Your task to perform on an android device: Open calendar and show me the third week of next month Image 0: 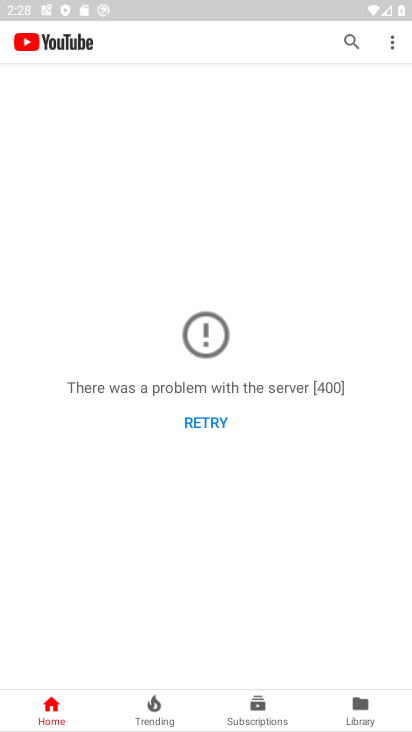
Step 0: press back button
Your task to perform on an android device: Open calendar and show me the third week of next month Image 1: 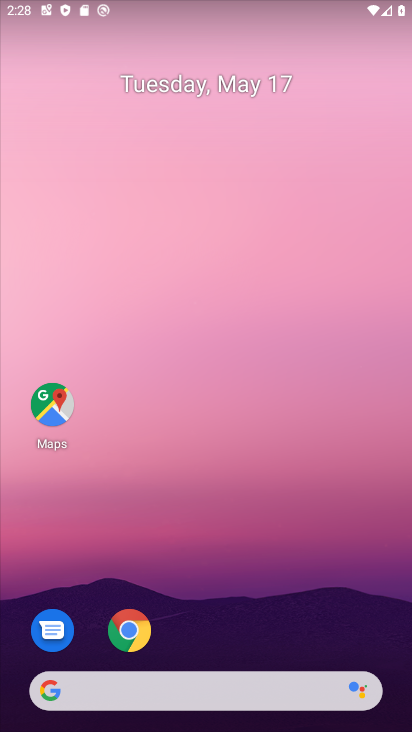
Step 1: drag from (221, 673) to (232, 321)
Your task to perform on an android device: Open calendar and show me the third week of next month Image 2: 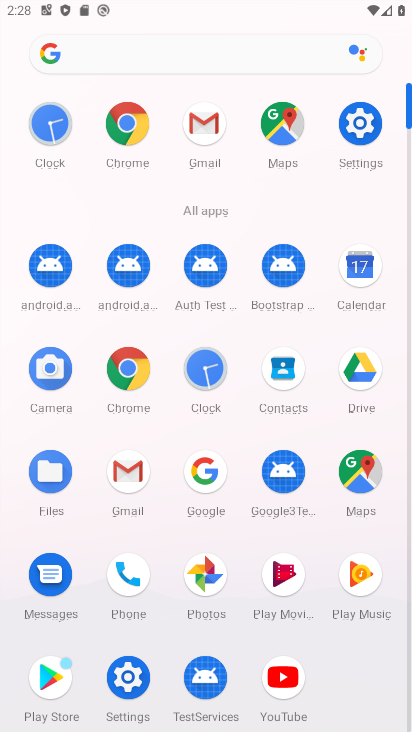
Step 2: click (361, 274)
Your task to perform on an android device: Open calendar and show me the third week of next month Image 3: 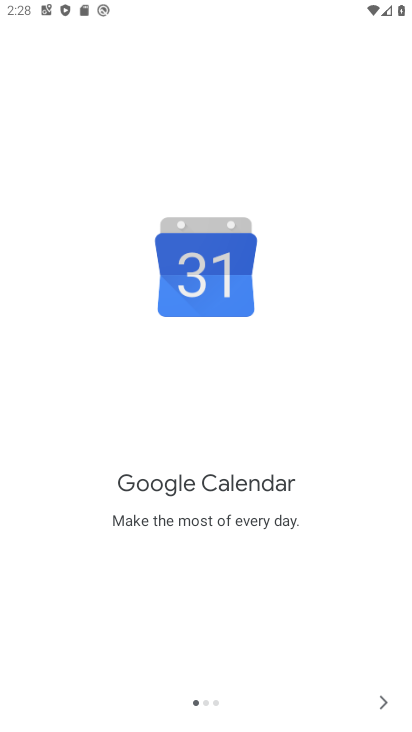
Step 3: click (380, 702)
Your task to perform on an android device: Open calendar and show me the third week of next month Image 4: 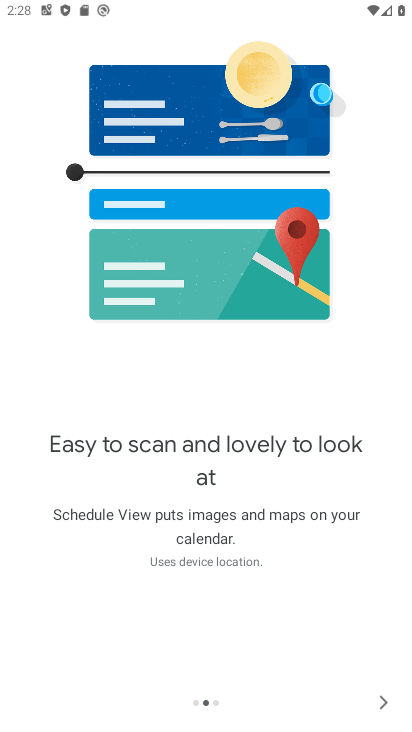
Step 4: click (380, 702)
Your task to perform on an android device: Open calendar and show me the third week of next month Image 5: 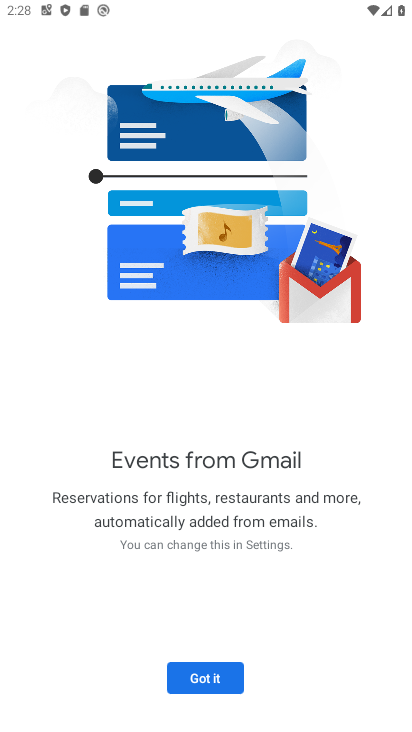
Step 5: click (190, 675)
Your task to perform on an android device: Open calendar and show me the third week of next month Image 6: 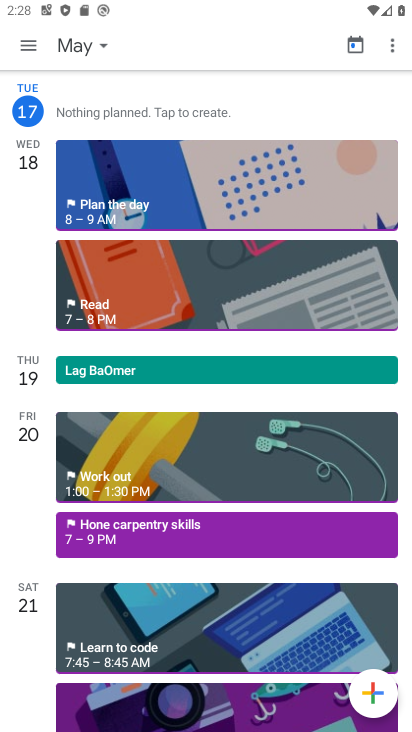
Step 6: click (101, 41)
Your task to perform on an android device: Open calendar and show me the third week of next month Image 7: 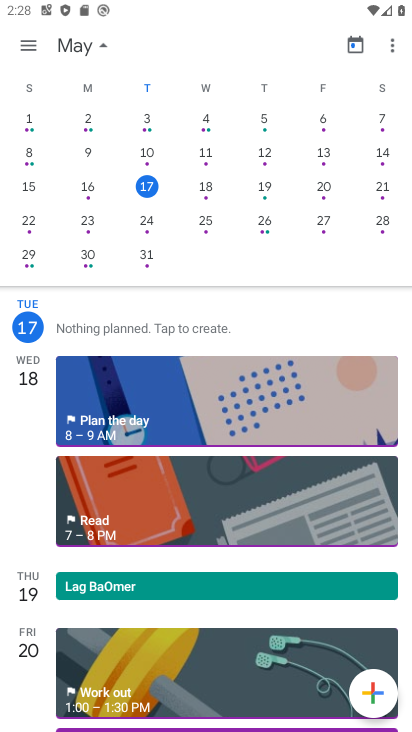
Step 7: drag from (374, 236) to (33, 248)
Your task to perform on an android device: Open calendar and show me the third week of next month Image 8: 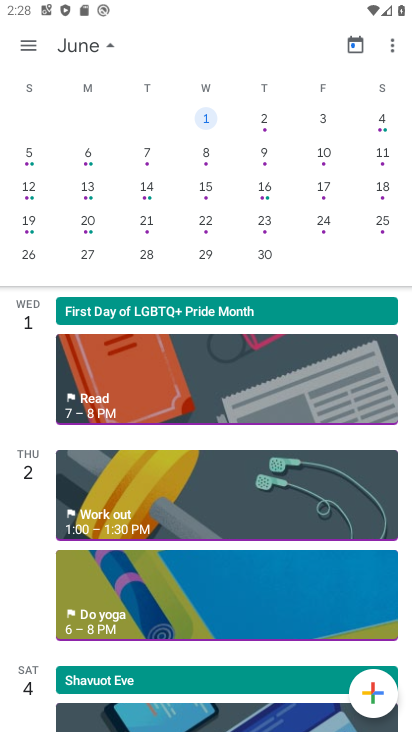
Step 8: click (26, 190)
Your task to perform on an android device: Open calendar and show me the third week of next month Image 9: 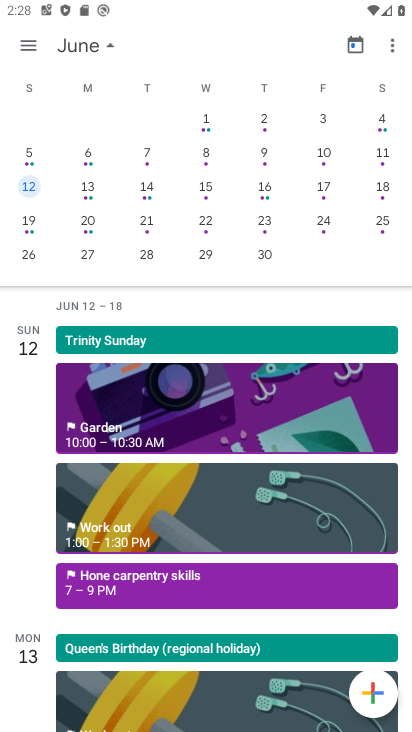
Step 9: task complete